Your task to perform on an android device: Is it going to rain this weekend? Image 0: 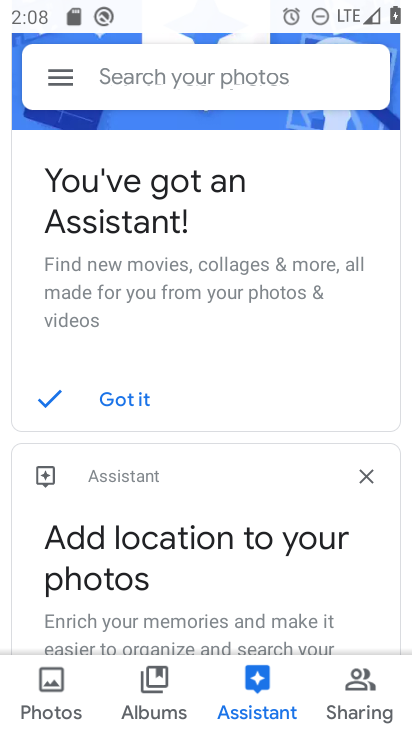
Step 0: press home button
Your task to perform on an android device: Is it going to rain this weekend? Image 1: 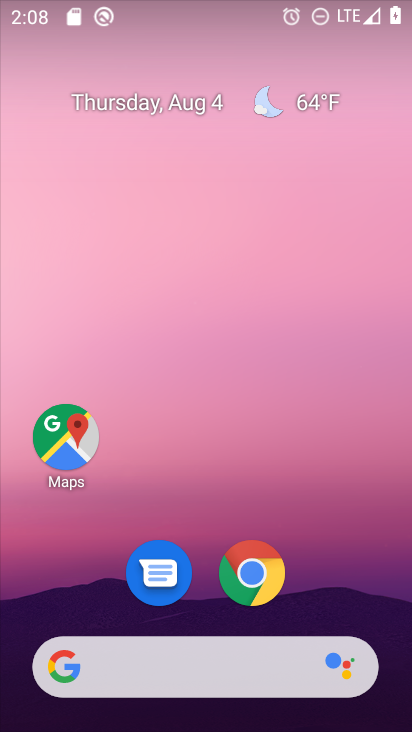
Step 1: click (299, 95)
Your task to perform on an android device: Is it going to rain this weekend? Image 2: 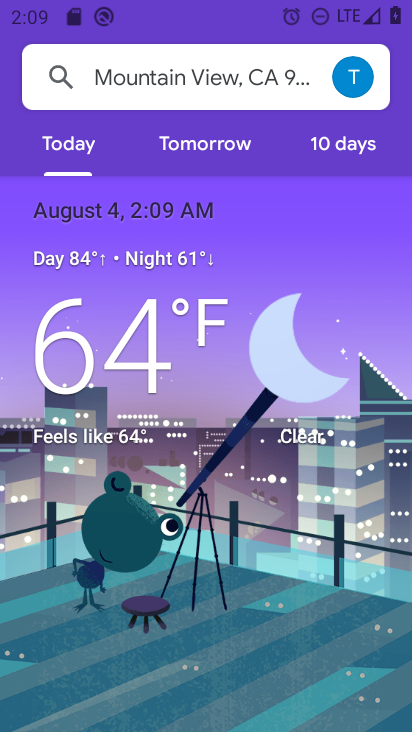
Step 2: click (342, 152)
Your task to perform on an android device: Is it going to rain this weekend? Image 3: 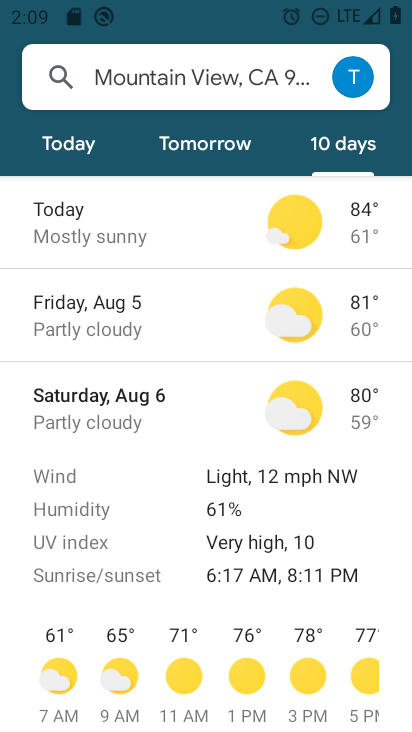
Step 3: drag from (103, 493) to (191, 296)
Your task to perform on an android device: Is it going to rain this weekend? Image 4: 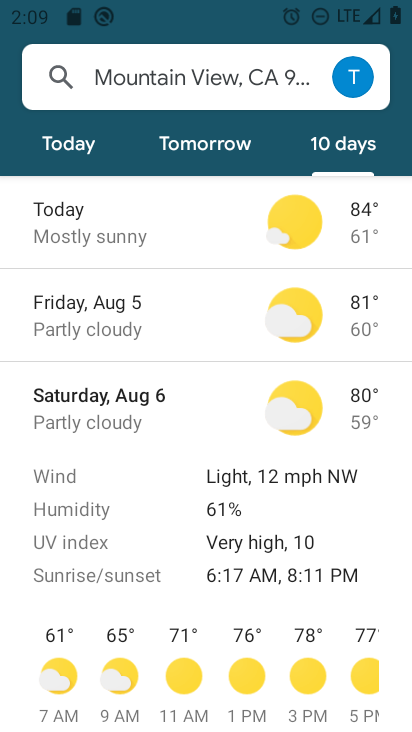
Step 4: click (120, 390)
Your task to perform on an android device: Is it going to rain this weekend? Image 5: 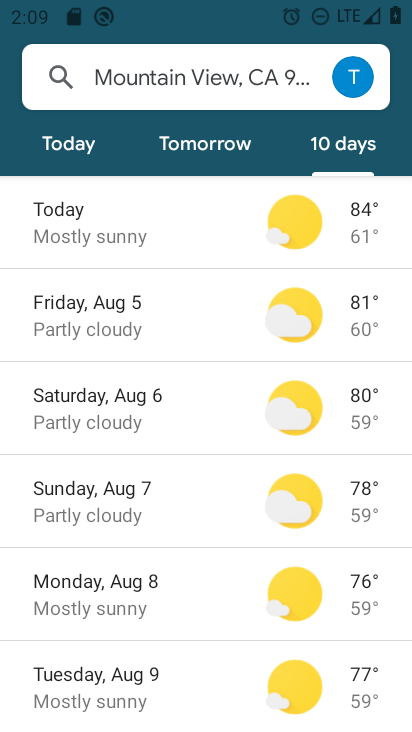
Step 5: click (103, 390)
Your task to perform on an android device: Is it going to rain this weekend? Image 6: 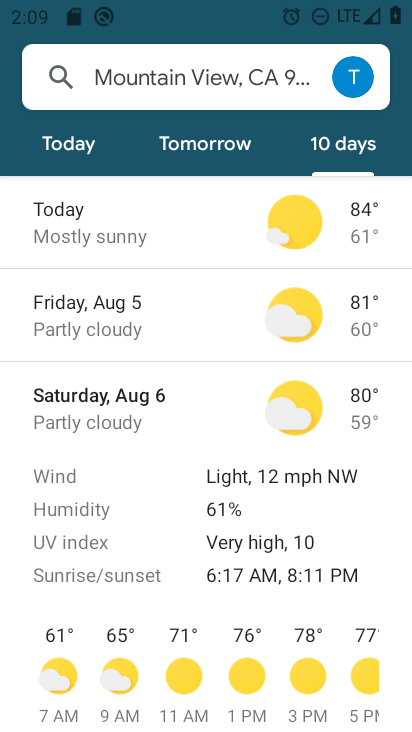
Step 6: task complete